Your task to perform on an android device: Open Google Chrome and click the shortcut for Amazon.com Image 0: 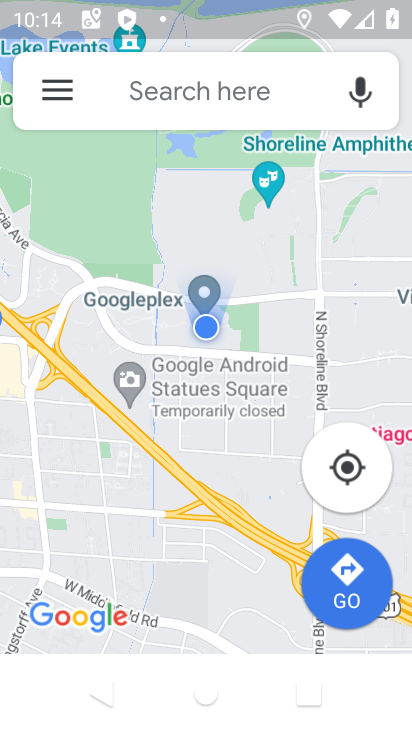
Step 0: press home button
Your task to perform on an android device: Open Google Chrome and click the shortcut for Amazon.com Image 1: 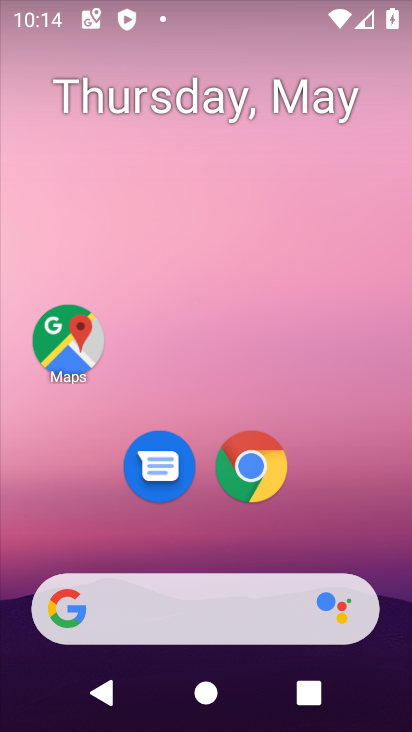
Step 1: click (257, 450)
Your task to perform on an android device: Open Google Chrome and click the shortcut for Amazon.com Image 2: 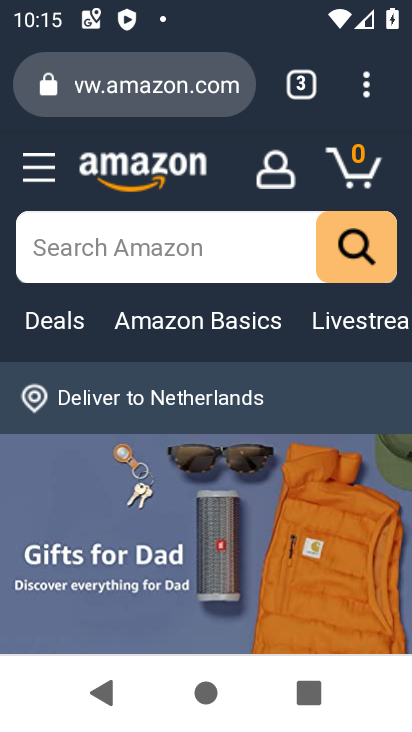
Step 2: task complete